Your task to perform on an android device: allow notifications from all sites in the chrome app Image 0: 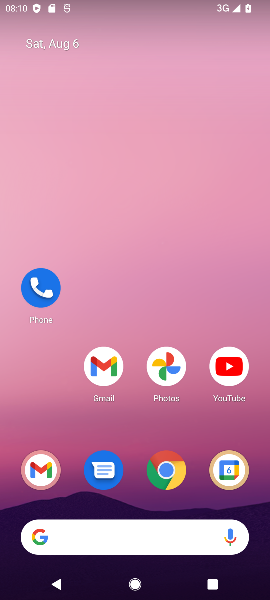
Step 0: drag from (178, 419) to (171, 57)
Your task to perform on an android device: allow notifications from all sites in the chrome app Image 1: 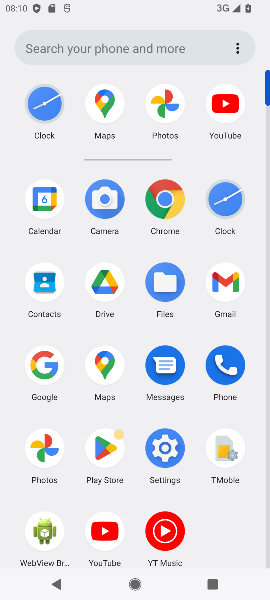
Step 1: click (151, 207)
Your task to perform on an android device: allow notifications from all sites in the chrome app Image 2: 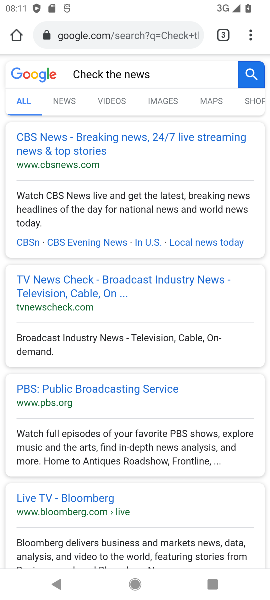
Step 2: press home button
Your task to perform on an android device: allow notifications from all sites in the chrome app Image 3: 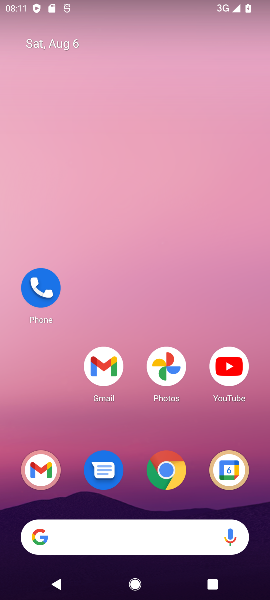
Step 3: click (161, 471)
Your task to perform on an android device: allow notifications from all sites in the chrome app Image 4: 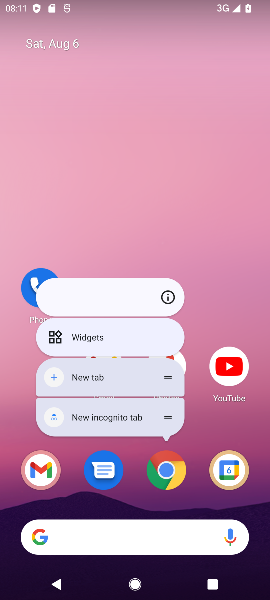
Step 4: click (164, 293)
Your task to perform on an android device: allow notifications from all sites in the chrome app Image 5: 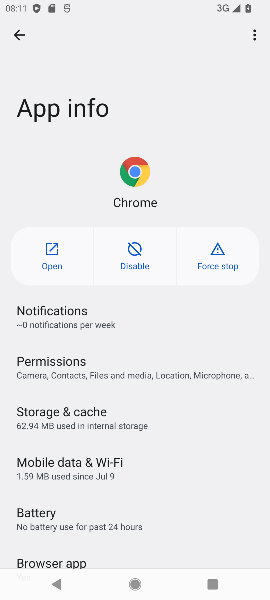
Step 5: drag from (163, 413) to (112, 254)
Your task to perform on an android device: allow notifications from all sites in the chrome app Image 6: 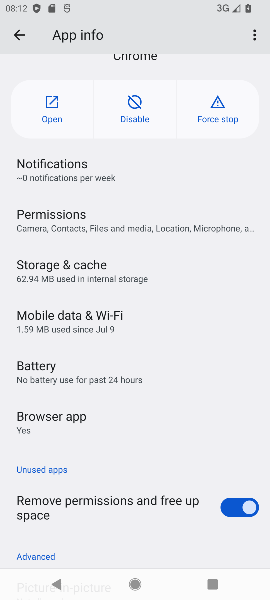
Step 6: click (65, 206)
Your task to perform on an android device: allow notifications from all sites in the chrome app Image 7: 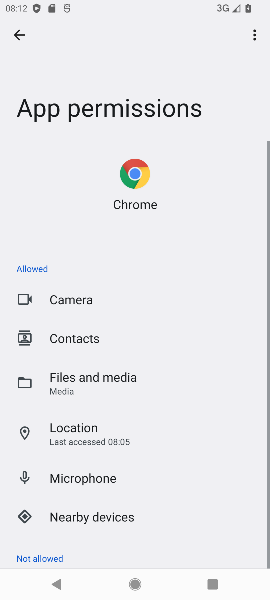
Step 7: task complete